Your task to perform on an android device: turn off smart reply in the gmail app Image 0: 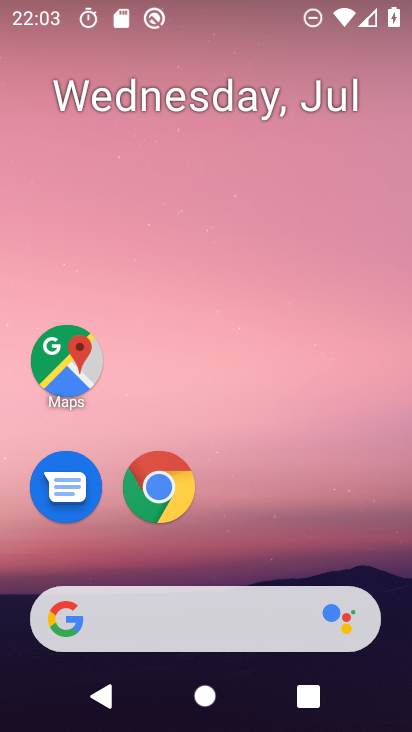
Step 0: drag from (340, 531) to (355, 114)
Your task to perform on an android device: turn off smart reply in the gmail app Image 1: 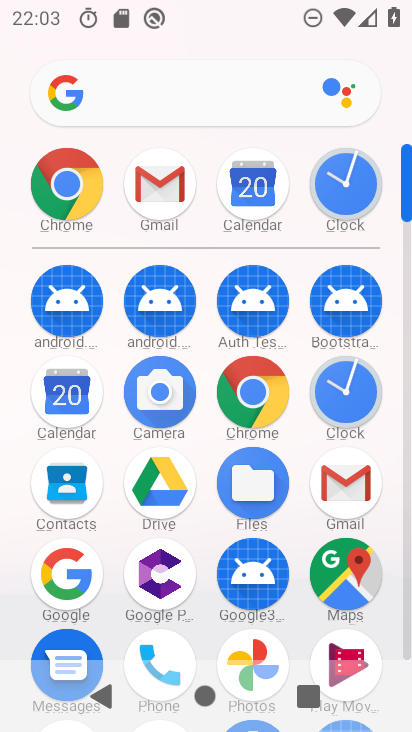
Step 1: click (362, 485)
Your task to perform on an android device: turn off smart reply in the gmail app Image 2: 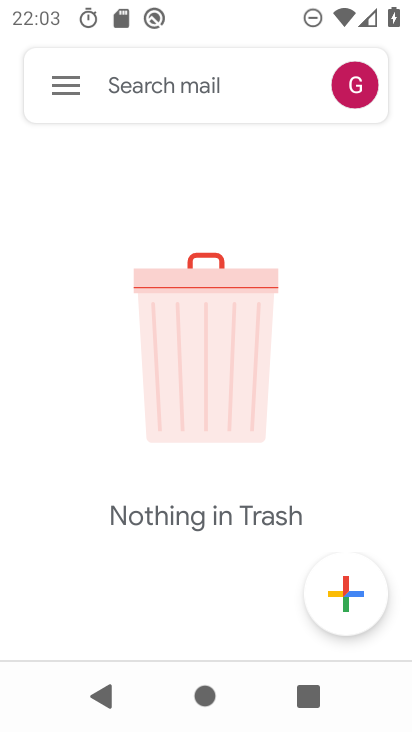
Step 2: click (64, 84)
Your task to perform on an android device: turn off smart reply in the gmail app Image 3: 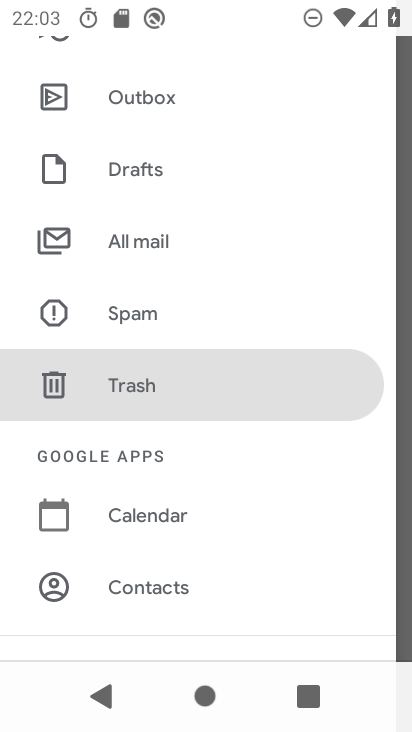
Step 3: drag from (282, 228) to (282, 342)
Your task to perform on an android device: turn off smart reply in the gmail app Image 4: 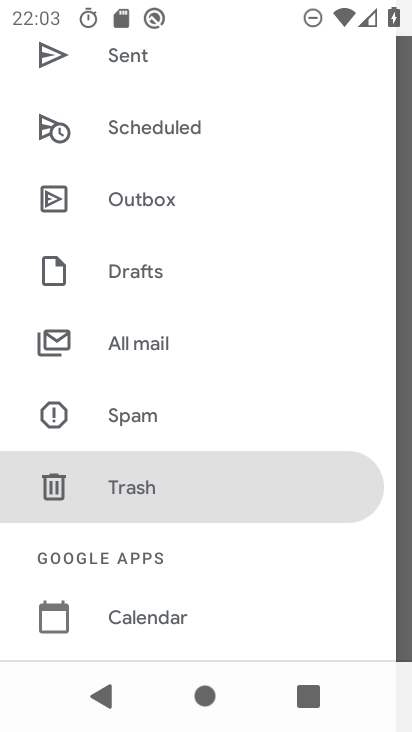
Step 4: drag from (298, 212) to (308, 349)
Your task to perform on an android device: turn off smart reply in the gmail app Image 5: 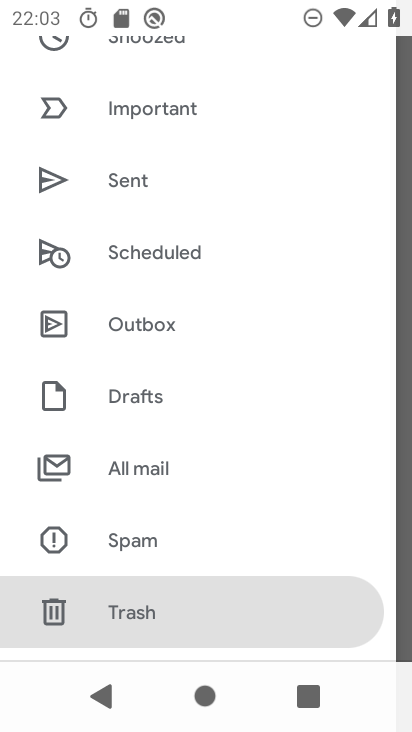
Step 5: drag from (322, 191) to (322, 344)
Your task to perform on an android device: turn off smart reply in the gmail app Image 6: 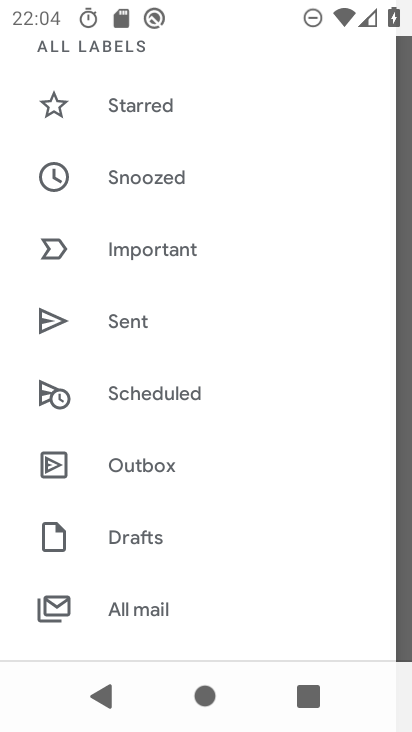
Step 6: drag from (325, 166) to (337, 380)
Your task to perform on an android device: turn off smart reply in the gmail app Image 7: 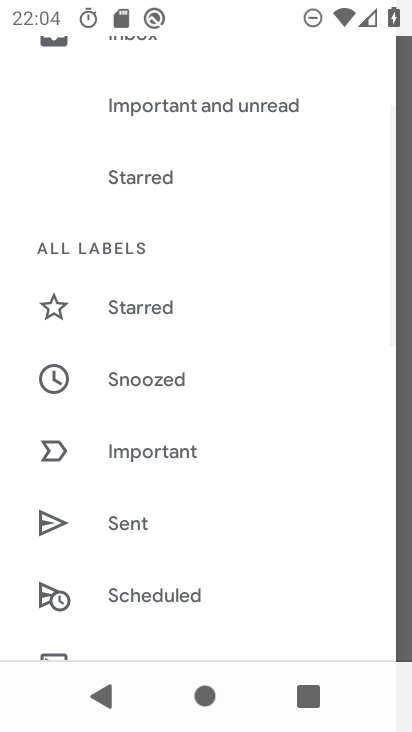
Step 7: drag from (337, 381) to (338, 300)
Your task to perform on an android device: turn off smart reply in the gmail app Image 8: 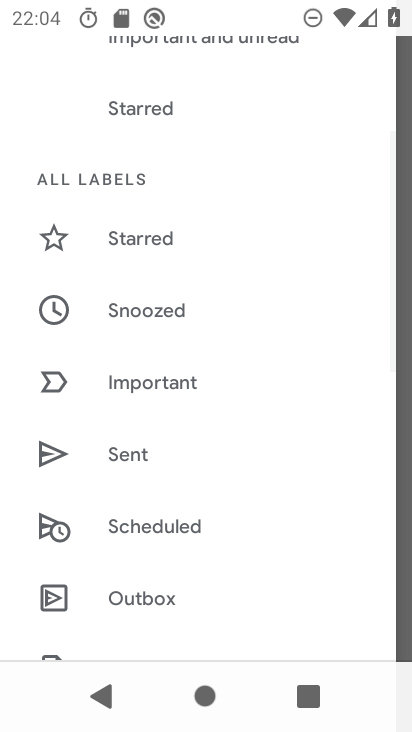
Step 8: drag from (328, 408) to (332, 338)
Your task to perform on an android device: turn off smart reply in the gmail app Image 9: 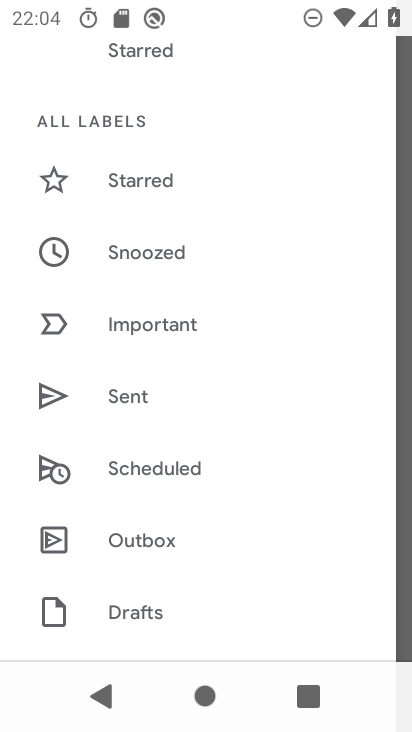
Step 9: drag from (334, 407) to (340, 338)
Your task to perform on an android device: turn off smart reply in the gmail app Image 10: 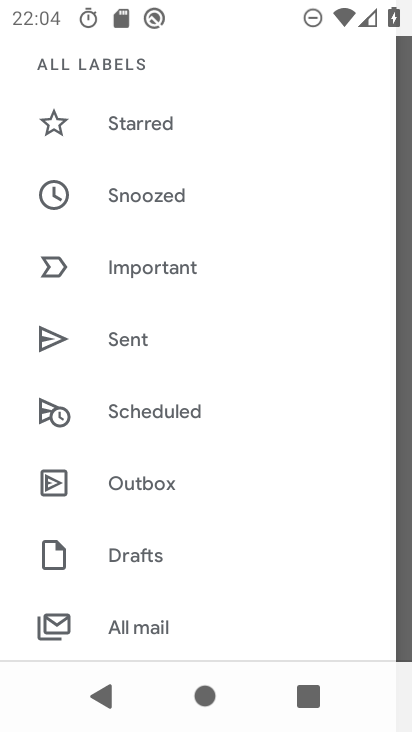
Step 10: drag from (326, 428) to (326, 355)
Your task to perform on an android device: turn off smart reply in the gmail app Image 11: 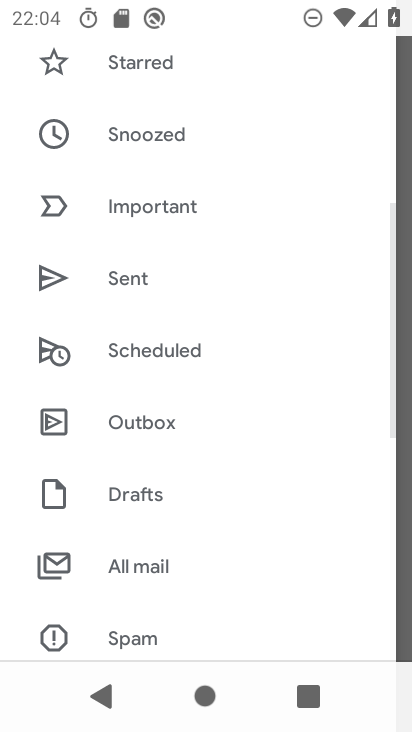
Step 11: drag from (314, 445) to (317, 336)
Your task to perform on an android device: turn off smart reply in the gmail app Image 12: 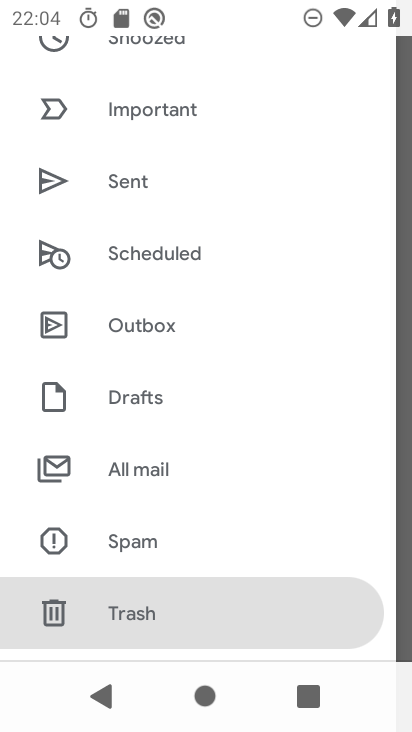
Step 12: drag from (312, 430) to (312, 327)
Your task to perform on an android device: turn off smart reply in the gmail app Image 13: 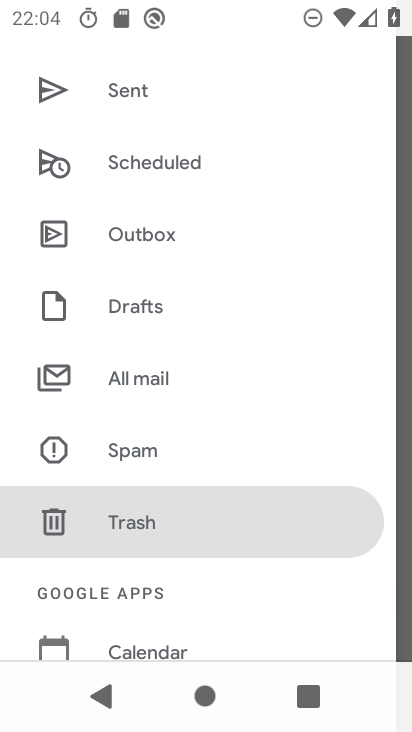
Step 13: drag from (318, 428) to (323, 310)
Your task to perform on an android device: turn off smart reply in the gmail app Image 14: 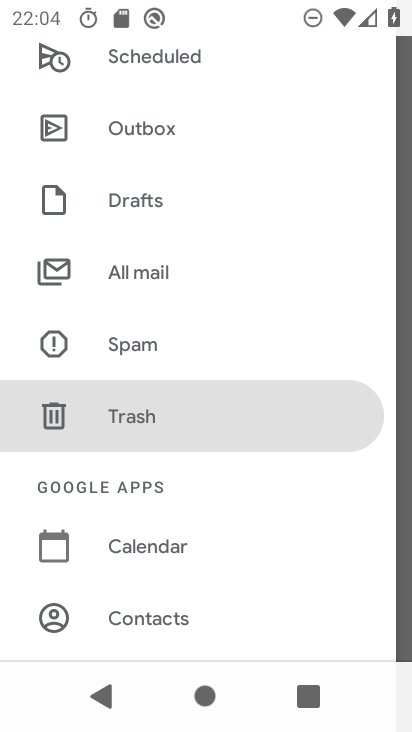
Step 14: drag from (313, 483) to (323, 250)
Your task to perform on an android device: turn off smart reply in the gmail app Image 15: 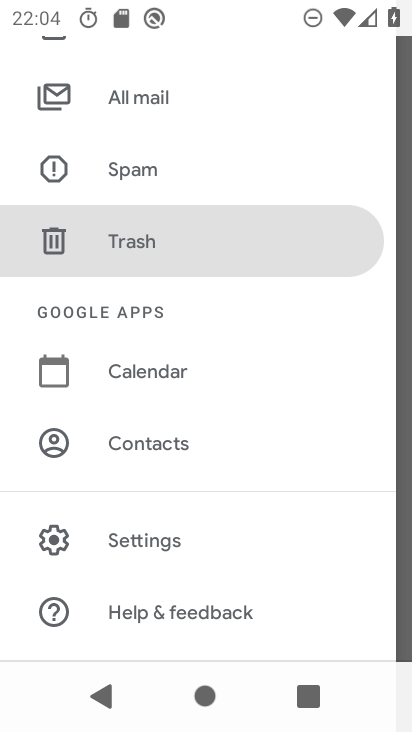
Step 15: click (279, 527)
Your task to perform on an android device: turn off smart reply in the gmail app Image 16: 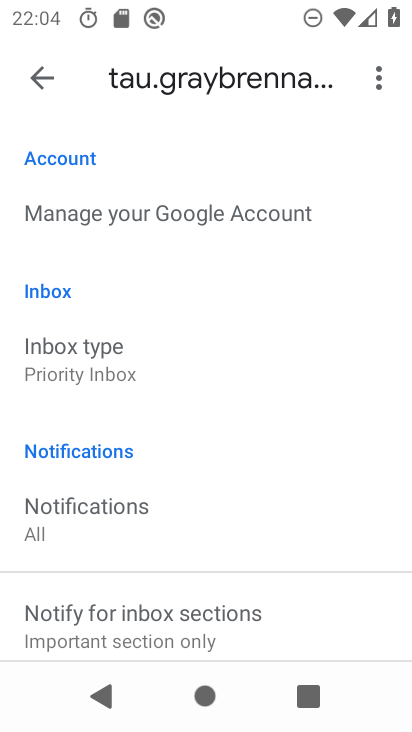
Step 16: drag from (308, 551) to (314, 467)
Your task to perform on an android device: turn off smart reply in the gmail app Image 17: 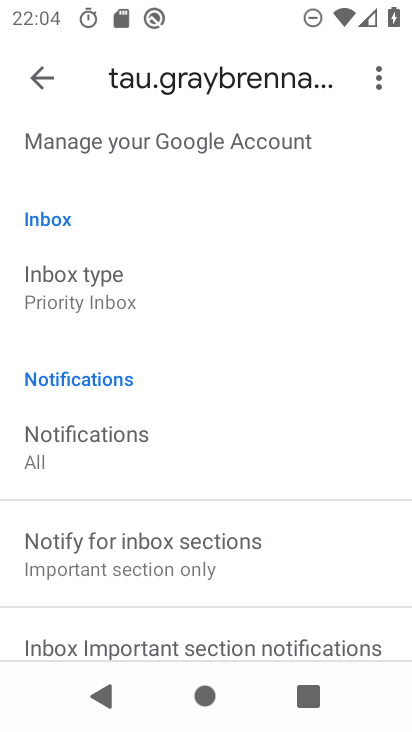
Step 17: drag from (314, 553) to (310, 438)
Your task to perform on an android device: turn off smart reply in the gmail app Image 18: 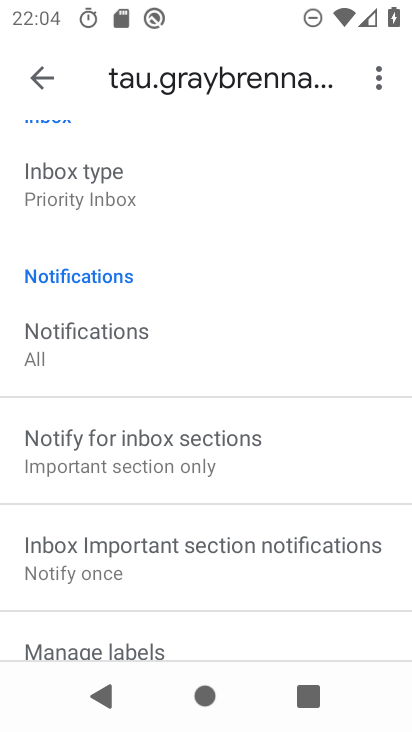
Step 18: drag from (320, 555) to (322, 464)
Your task to perform on an android device: turn off smart reply in the gmail app Image 19: 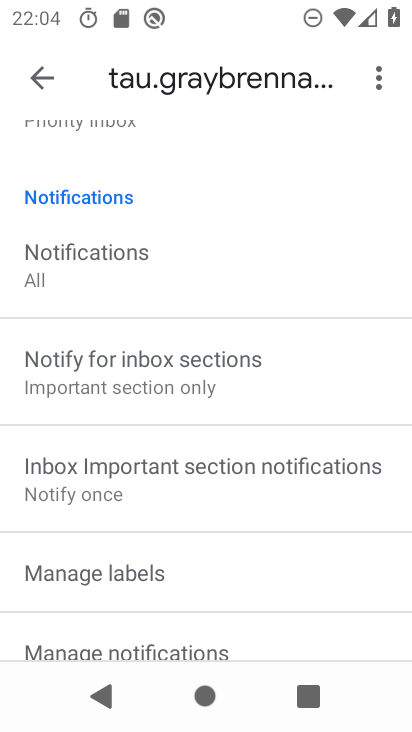
Step 19: drag from (321, 553) to (319, 459)
Your task to perform on an android device: turn off smart reply in the gmail app Image 20: 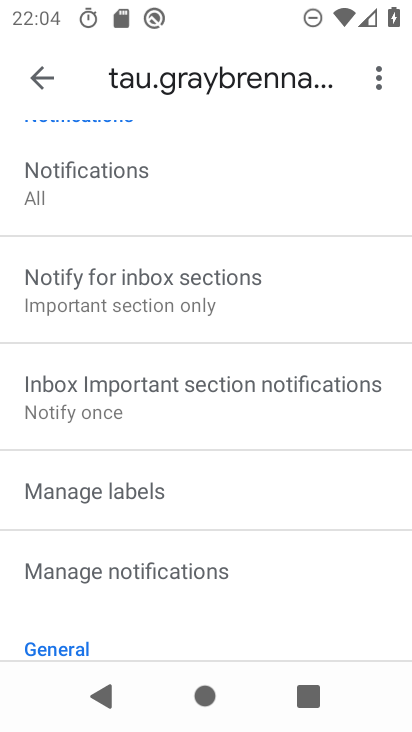
Step 20: drag from (310, 563) to (323, 464)
Your task to perform on an android device: turn off smart reply in the gmail app Image 21: 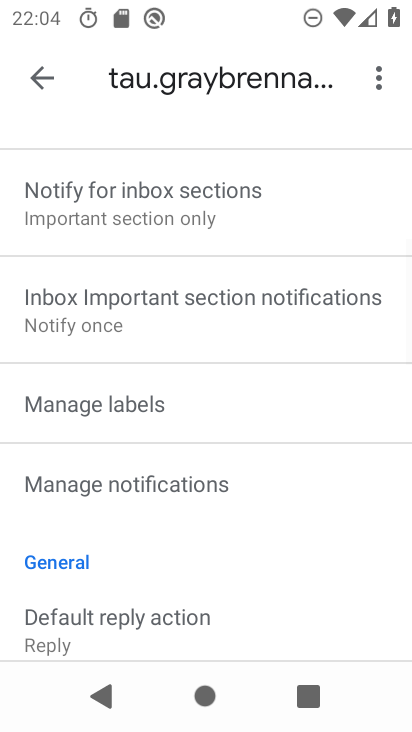
Step 21: drag from (324, 548) to (344, 419)
Your task to perform on an android device: turn off smart reply in the gmail app Image 22: 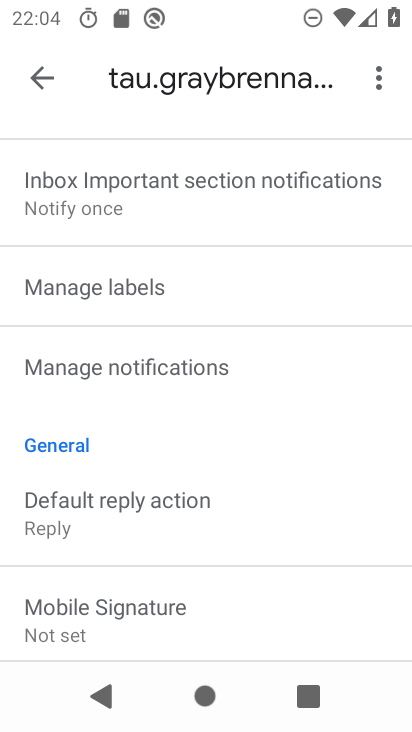
Step 22: drag from (347, 562) to (352, 429)
Your task to perform on an android device: turn off smart reply in the gmail app Image 23: 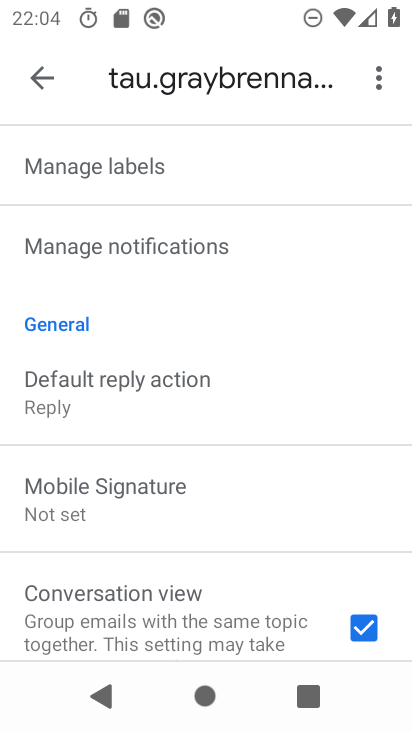
Step 23: drag from (332, 542) to (333, 444)
Your task to perform on an android device: turn off smart reply in the gmail app Image 24: 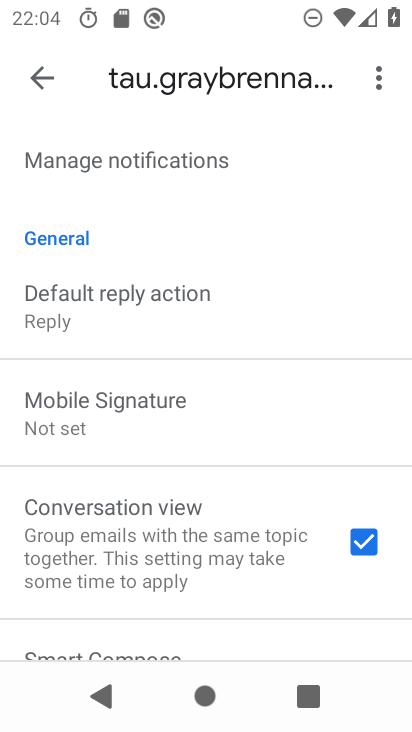
Step 24: drag from (310, 579) to (310, 443)
Your task to perform on an android device: turn off smart reply in the gmail app Image 25: 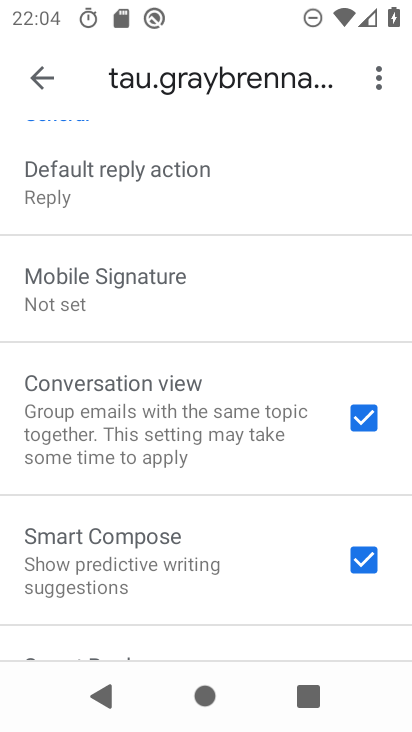
Step 25: drag from (281, 585) to (282, 452)
Your task to perform on an android device: turn off smart reply in the gmail app Image 26: 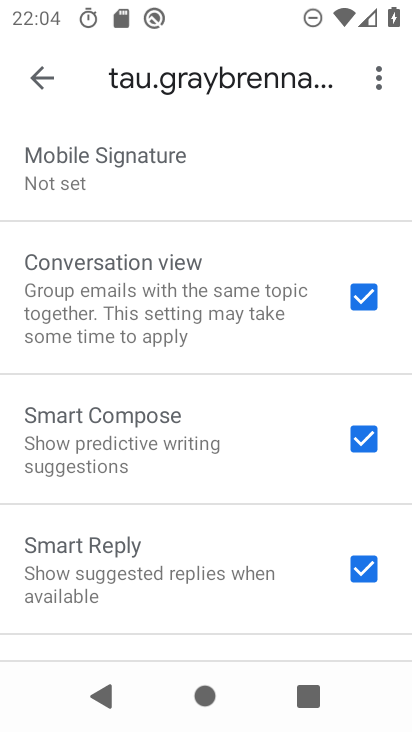
Step 26: drag from (290, 549) to (304, 392)
Your task to perform on an android device: turn off smart reply in the gmail app Image 27: 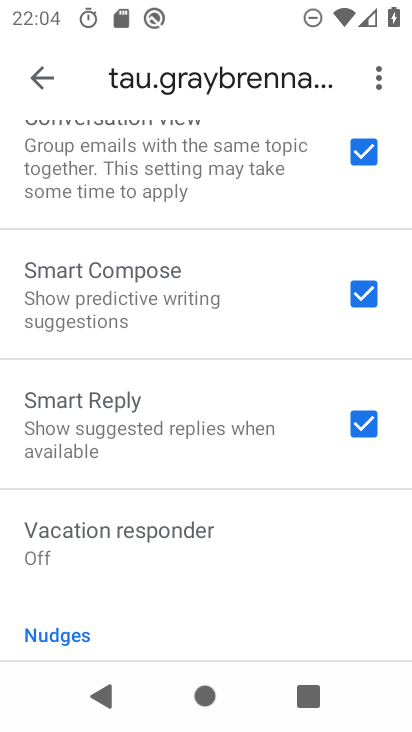
Step 27: click (370, 421)
Your task to perform on an android device: turn off smart reply in the gmail app Image 28: 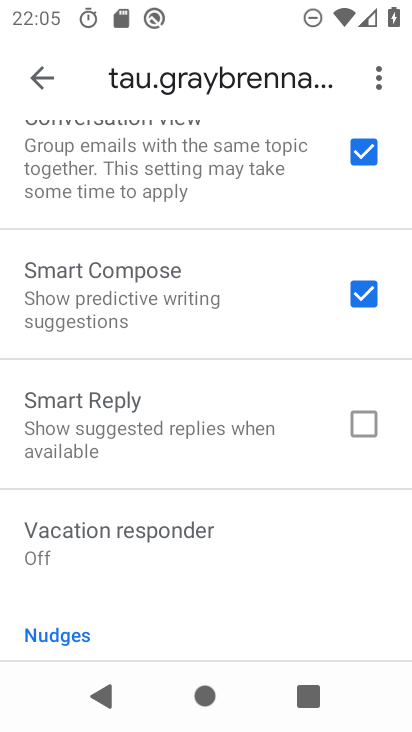
Step 28: task complete